Your task to perform on an android device: Add "alienware aurora" to the cart on ebay.com, then select checkout. Image 0: 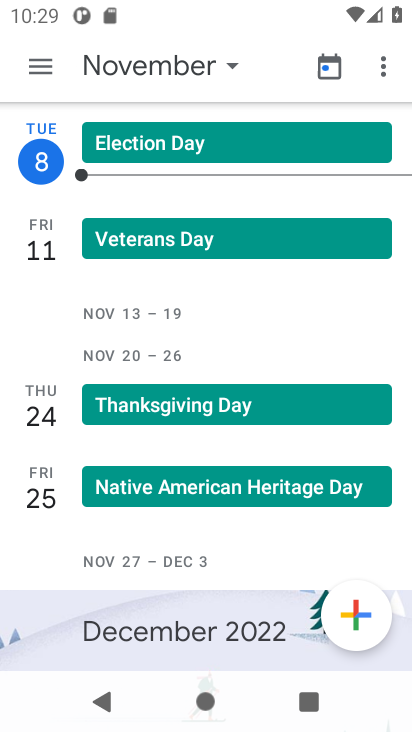
Step 0: press home button
Your task to perform on an android device: Add "alienware aurora" to the cart on ebay.com, then select checkout. Image 1: 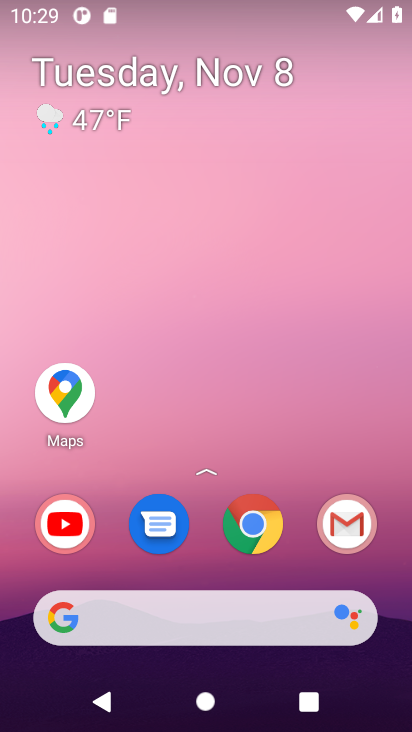
Step 1: click (249, 540)
Your task to perform on an android device: Add "alienware aurora" to the cart on ebay.com, then select checkout. Image 2: 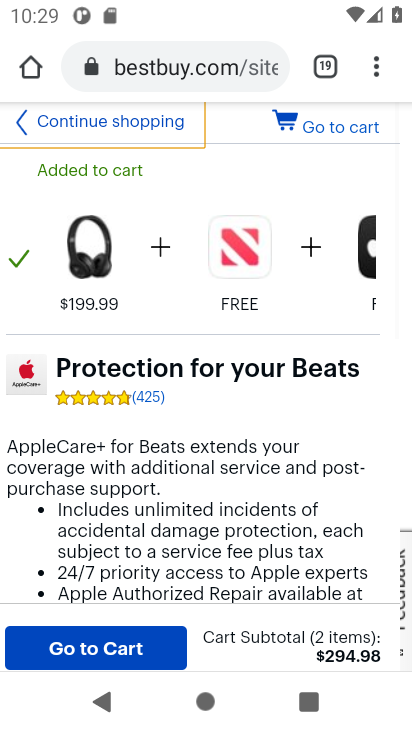
Step 2: click (209, 67)
Your task to perform on an android device: Add "alienware aurora" to the cart on ebay.com, then select checkout. Image 3: 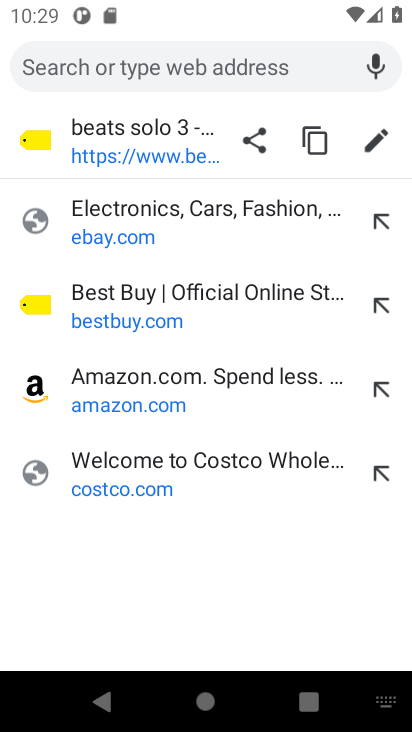
Step 3: click (123, 226)
Your task to perform on an android device: Add "alienware aurora" to the cart on ebay.com, then select checkout. Image 4: 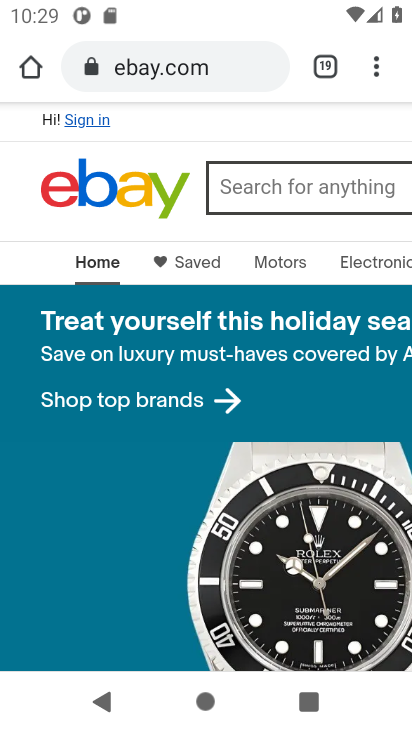
Step 4: click (268, 185)
Your task to perform on an android device: Add "alienware aurora" to the cart on ebay.com, then select checkout. Image 5: 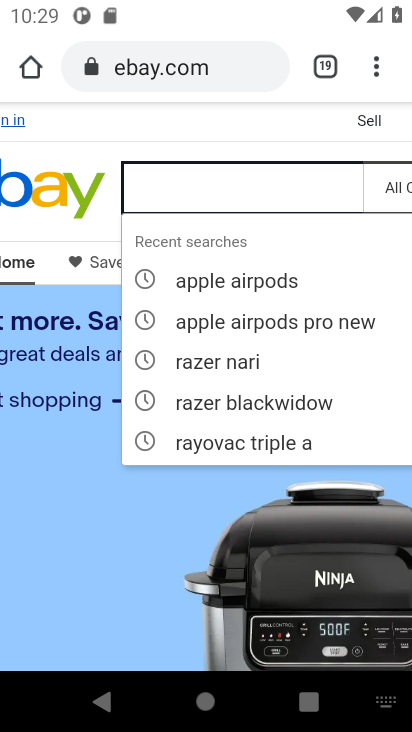
Step 5: type "alienware aurora"
Your task to perform on an android device: Add "alienware aurora" to the cart on ebay.com, then select checkout. Image 6: 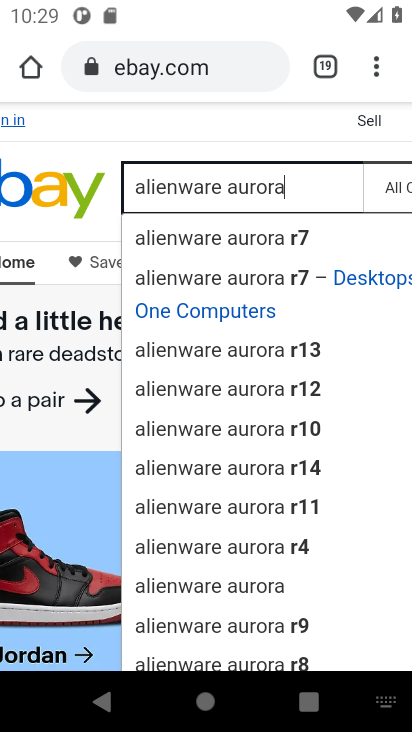
Step 6: click (238, 585)
Your task to perform on an android device: Add "alienware aurora" to the cart on ebay.com, then select checkout. Image 7: 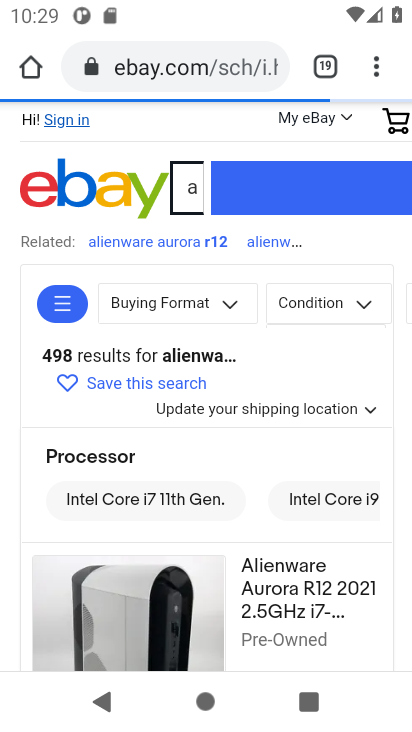
Step 7: drag from (237, 576) to (192, 392)
Your task to perform on an android device: Add "alienware aurora" to the cart on ebay.com, then select checkout. Image 8: 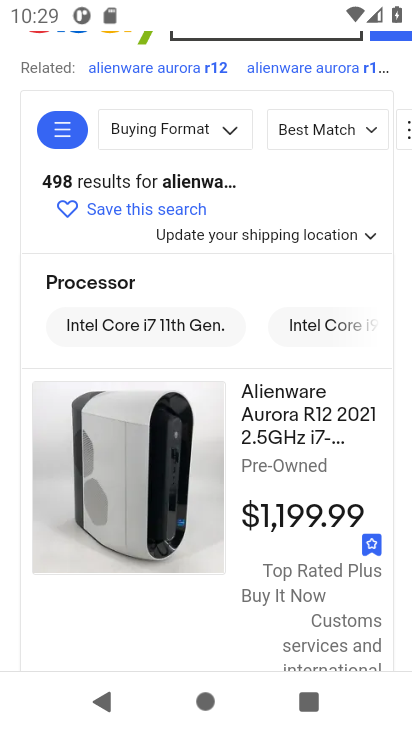
Step 8: drag from (178, 554) to (141, 283)
Your task to perform on an android device: Add "alienware aurora" to the cart on ebay.com, then select checkout. Image 9: 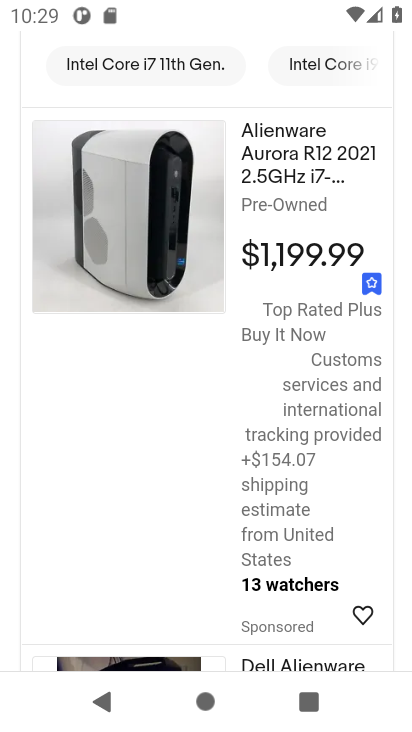
Step 9: drag from (147, 495) to (141, 324)
Your task to perform on an android device: Add "alienware aurora" to the cart on ebay.com, then select checkout. Image 10: 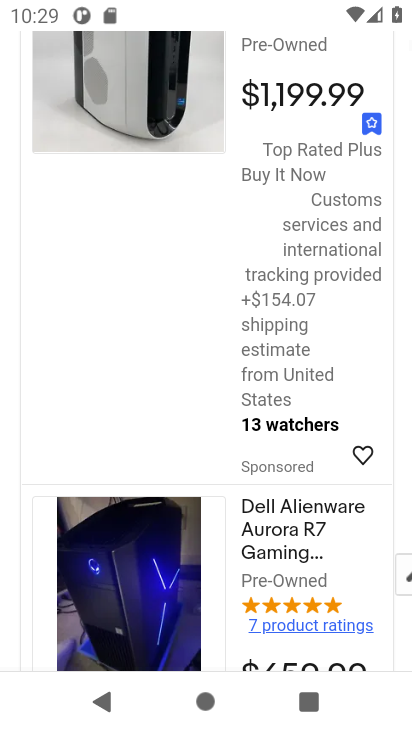
Step 10: click (94, 65)
Your task to perform on an android device: Add "alienware aurora" to the cart on ebay.com, then select checkout. Image 11: 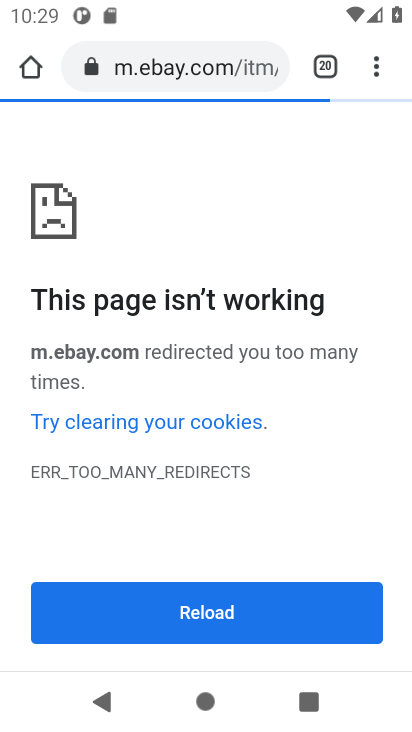
Step 11: task complete